Your task to perform on an android device: check out phone information Image 0: 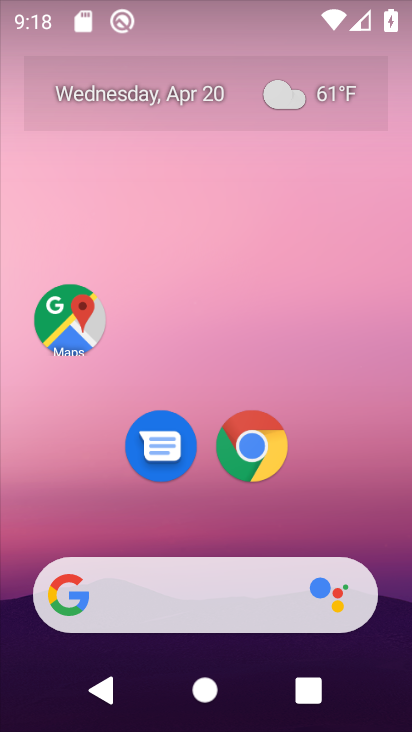
Step 0: drag from (376, 467) to (339, 97)
Your task to perform on an android device: check out phone information Image 1: 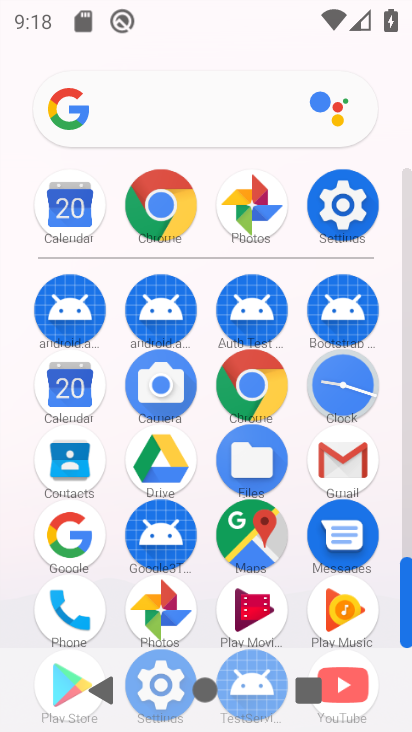
Step 1: click (338, 215)
Your task to perform on an android device: check out phone information Image 2: 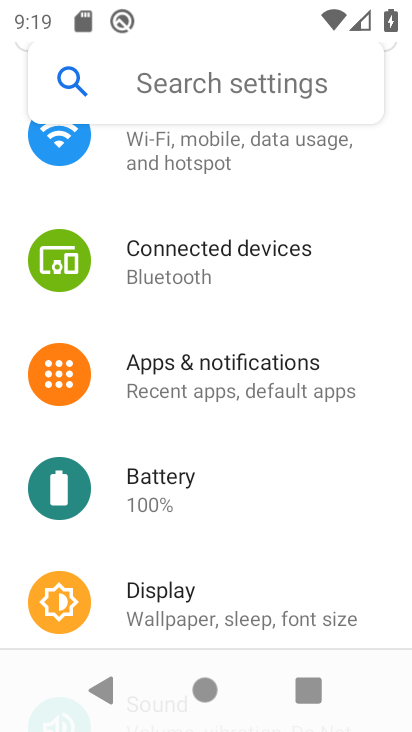
Step 2: drag from (249, 467) to (221, 129)
Your task to perform on an android device: check out phone information Image 3: 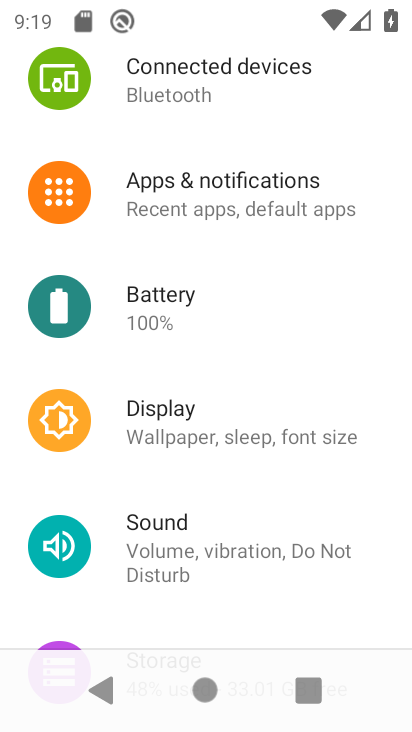
Step 3: drag from (219, 601) to (223, 138)
Your task to perform on an android device: check out phone information Image 4: 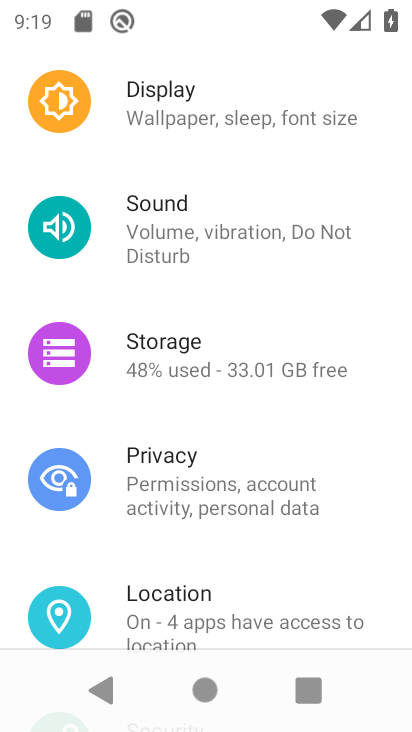
Step 4: drag from (304, 566) to (290, 280)
Your task to perform on an android device: check out phone information Image 5: 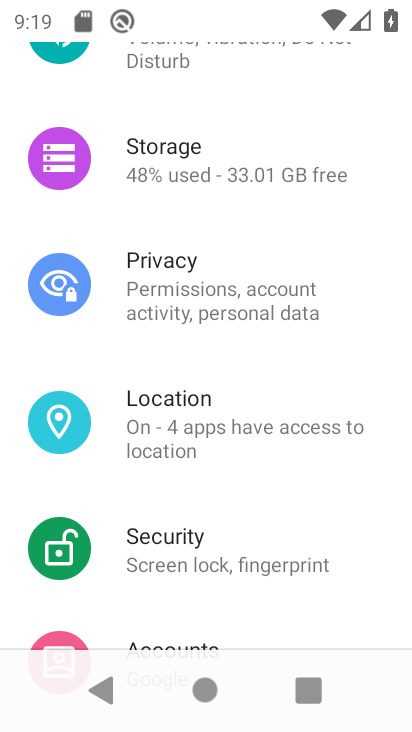
Step 5: drag from (323, 534) to (320, 74)
Your task to perform on an android device: check out phone information Image 6: 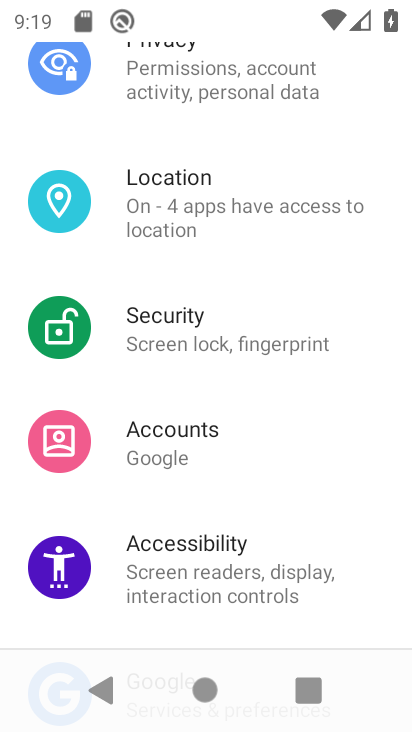
Step 6: drag from (317, 434) to (339, 62)
Your task to perform on an android device: check out phone information Image 7: 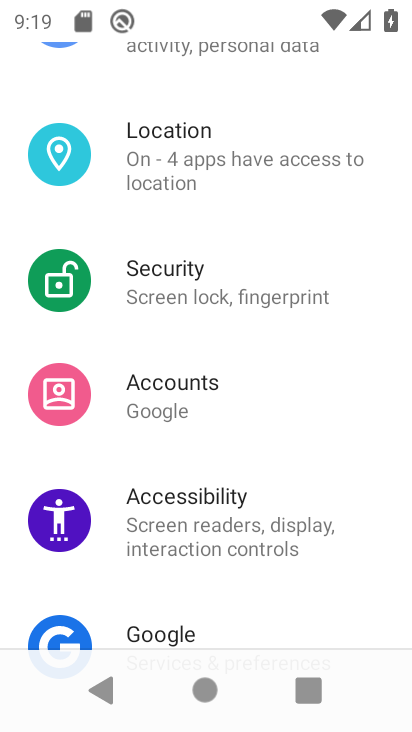
Step 7: drag from (294, 568) to (310, 124)
Your task to perform on an android device: check out phone information Image 8: 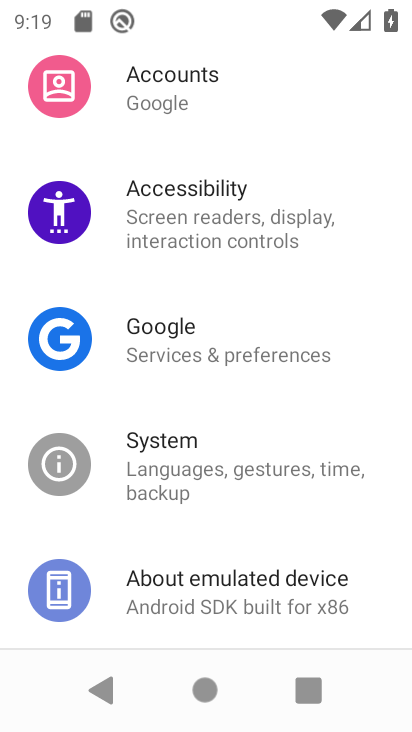
Step 8: drag from (297, 523) to (298, 207)
Your task to perform on an android device: check out phone information Image 9: 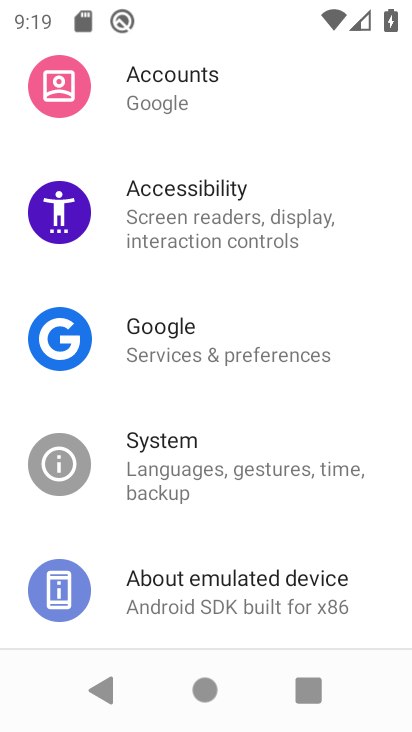
Step 9: click (264, 579)
Your task to perform on an android device: check out phone information Image 10: 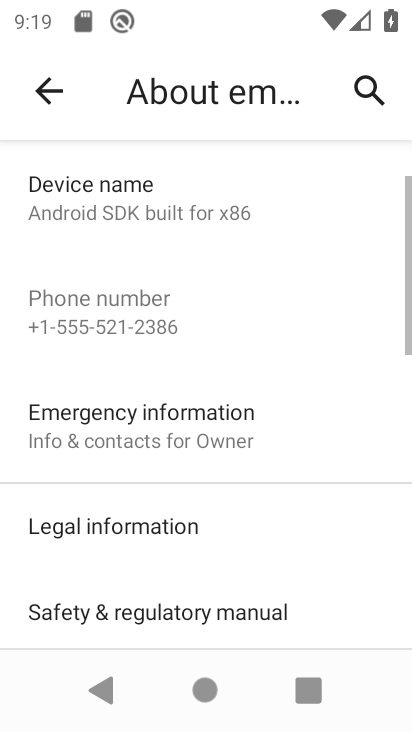
Step 10: task complete